Your task to perform on an android device: read, delete, or share a saved page in the chrome app Image 0: 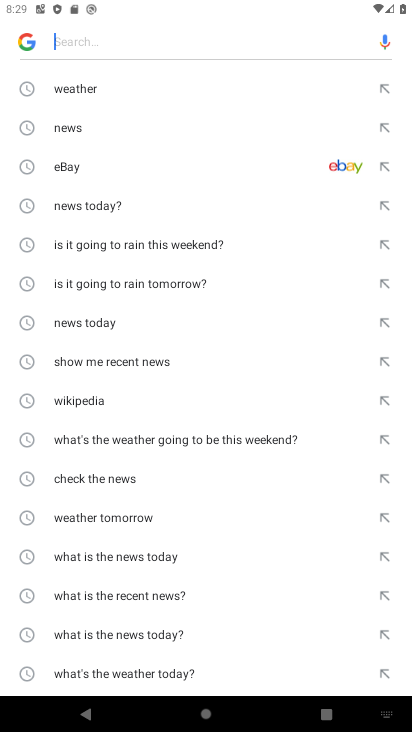
Step 0: press back button
Your task to perform on an android device: read, delete, or share a saved page in the chrome app Image 1: 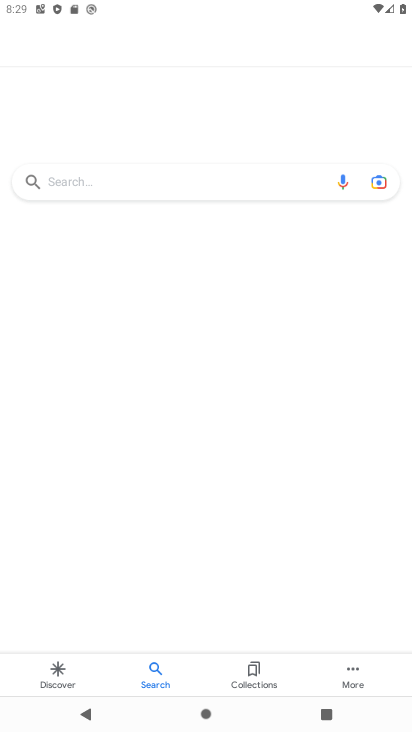
Step 1: press back button
Your task to perform on an android device: read, delete, or share a saved page in the chrome app Image 2: 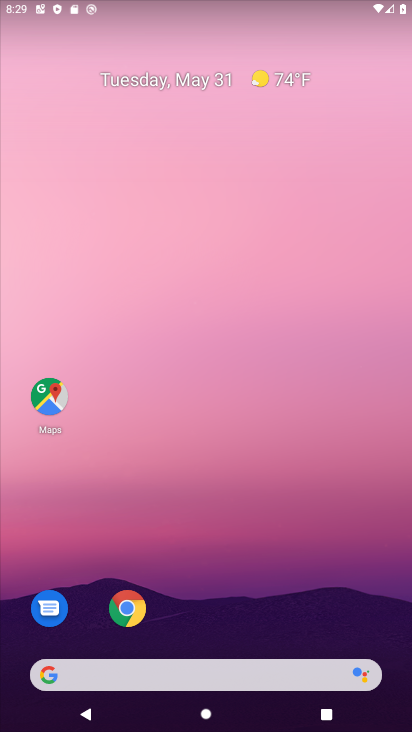
Step 2: click (131, 613)
Your task to perform on an android device: read, delete, or share a saved page in the chrome app Image 3: 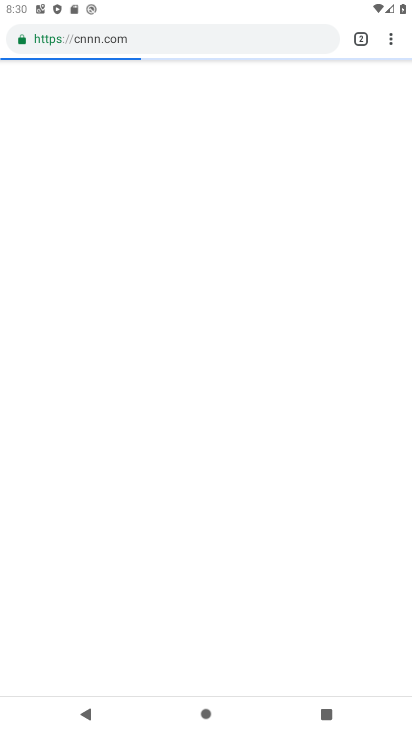
Step 3: click (385, 38)
Your task to perform on an android device: read, delete, or share a saved page in the chrome app Image 4: 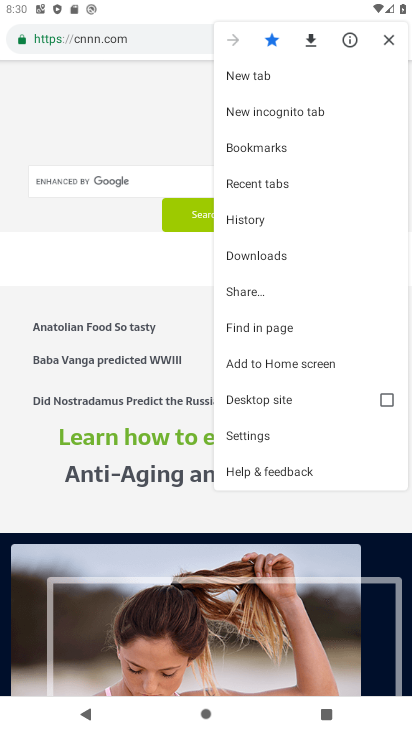
Step 4: click (268, 253)
Your task to perform on an android device: read, delete, or share a saved page in the chrome app Image 5: 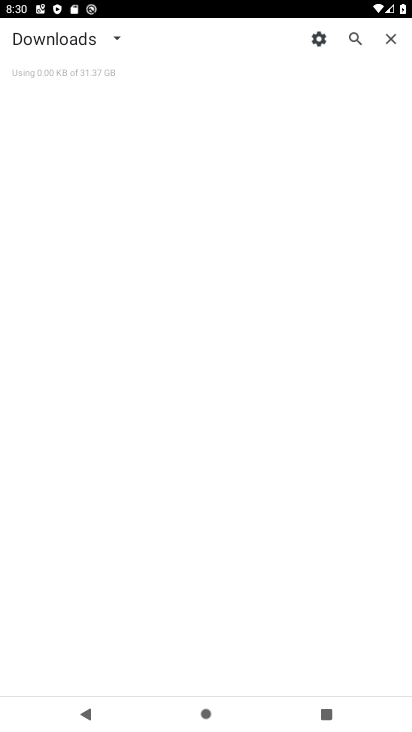
Step 5: task complete